Your task to perform on an android device: manage bookmarks in the chrome app Image 0: 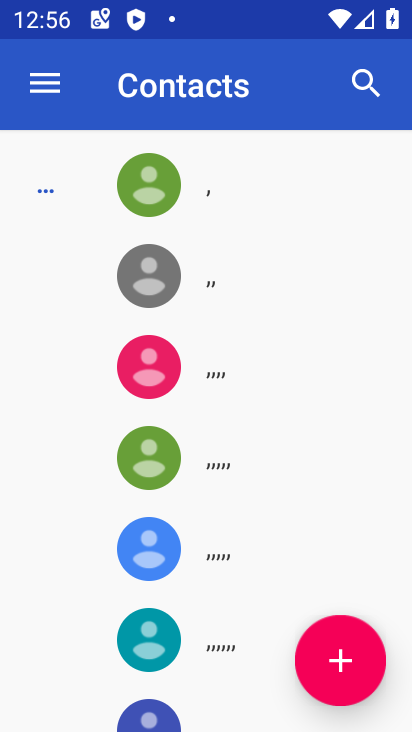
Step 0: press home button
Your task to perform on an android device: manage bookmarks in the chrome app Image 1: 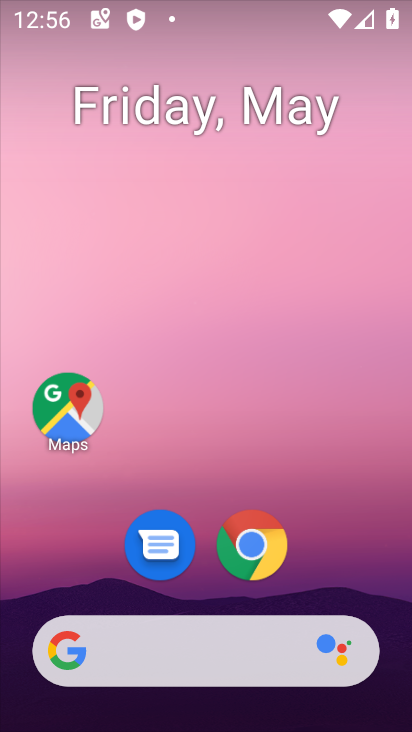
Step 1: click (272, 542)
Your task to perform on an android device: manage bookmarks in the chrome app Image 2: 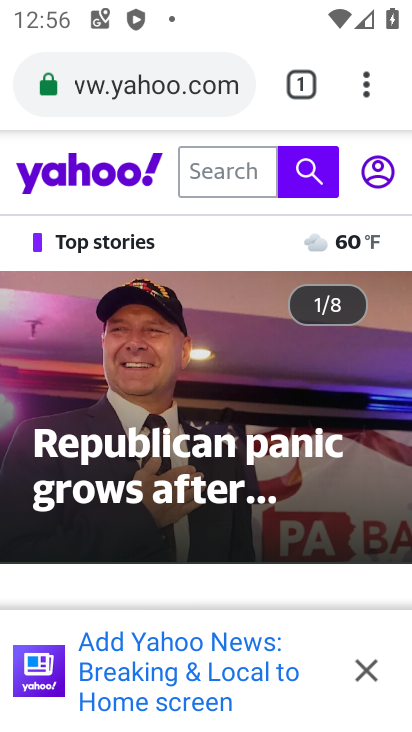
Step 2: click (371, 83)
Your task to perform on an android device: manage bookmarks in the chrome app Image 3: 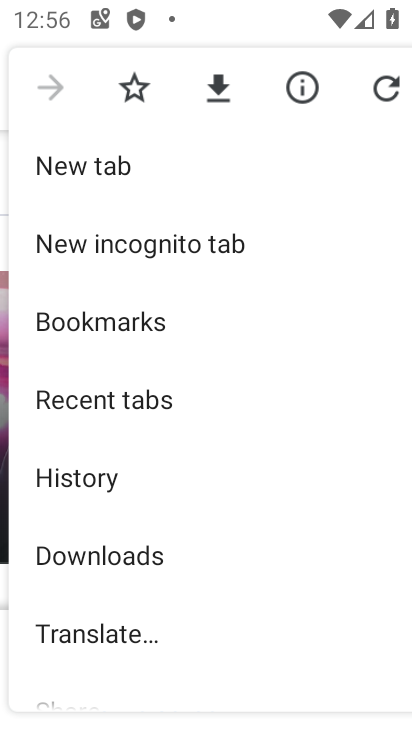
Step 3: click (147, 321)
Your task to perform on an android device: manage bookmarks in the chrome app Image 4: 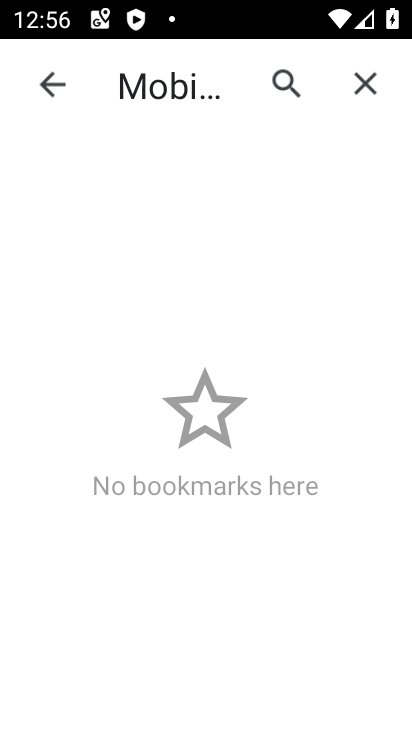
Step 4: task complete